Your task to perform on an android device: Open Chrome and go to settings Image 0: 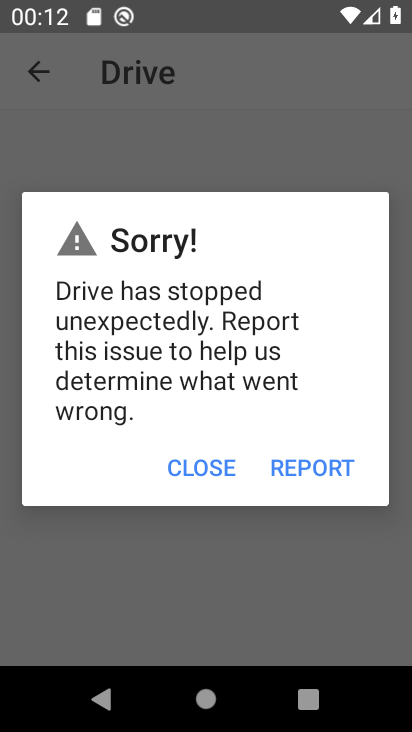
Step 0: press home button
Your task to perform on an android device: Open Chrome and go to settings Image 1: 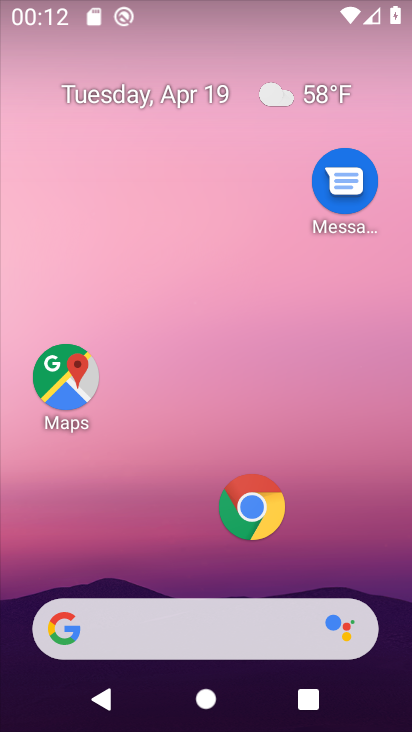
Step 1: click (244, 505)
Your task to perform on an android device: Open Chrome and go to settings Image 2: 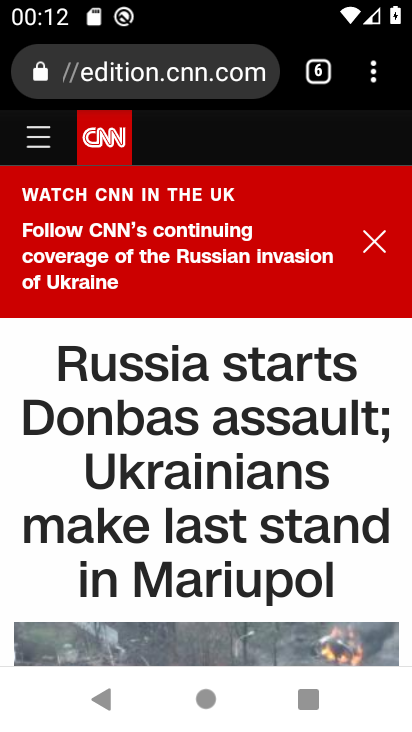
Step 2: click (378, 68)
Your task to perform on an android device: Open Chrome and go to settings Image 3: 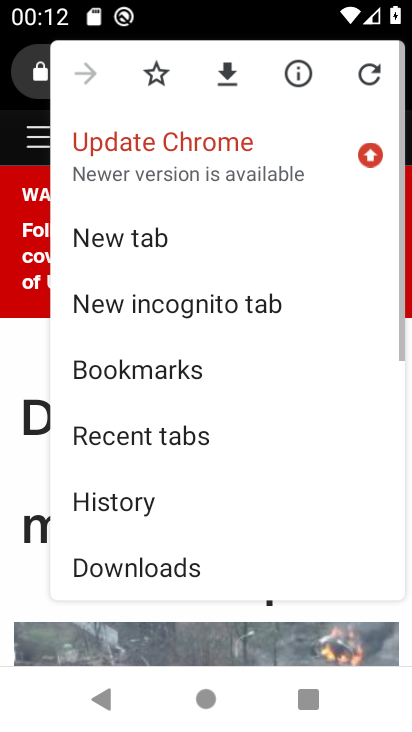
Step 3: drag from (169, 533) to (257, 101)
Your task to perform on an android device: Open Chrome and go to settings Image 4: 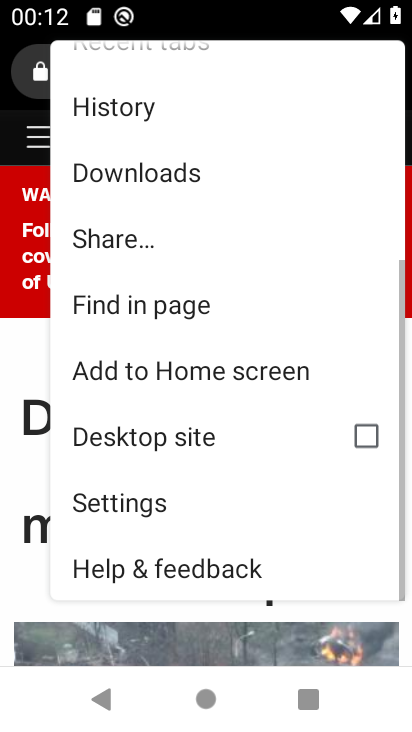
Step 4: click (137, 514)
Your task to perform on an android device: Open Chrome and go to settings Image 5: 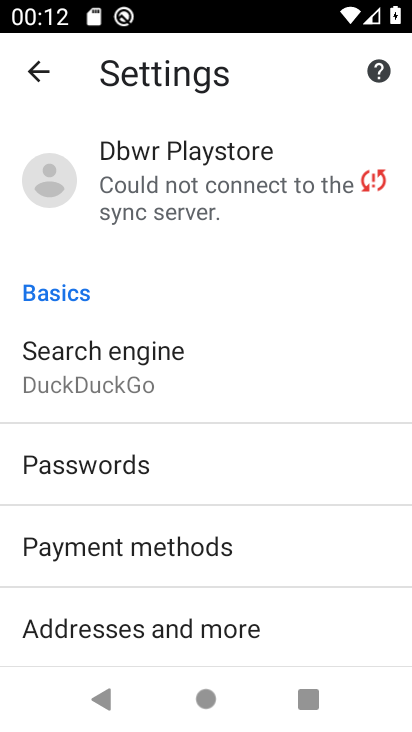
Step 5: task complete